Your task to perform on an android device: Go to internet settings Image 0: 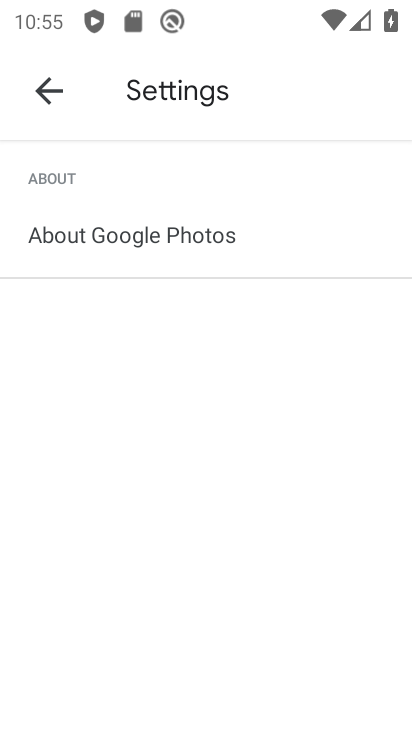
Step 0: press home button
Your task to perform on an android device: Go to internet settings Image 1: 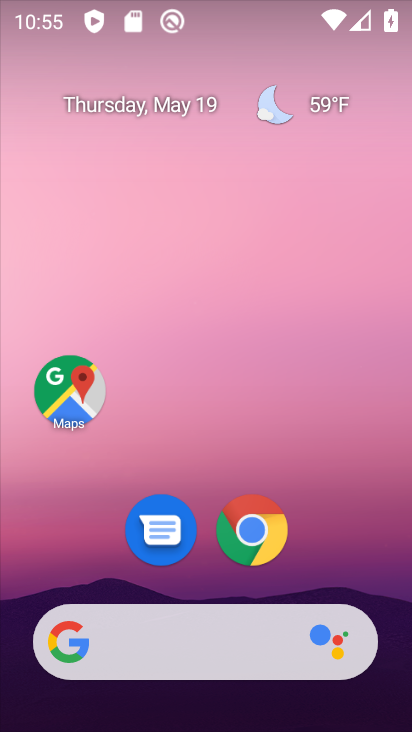
Step 1: drag from (362, 515) to (343, 157)
Your task to perform on an android device: Go to internet settings Image 2: 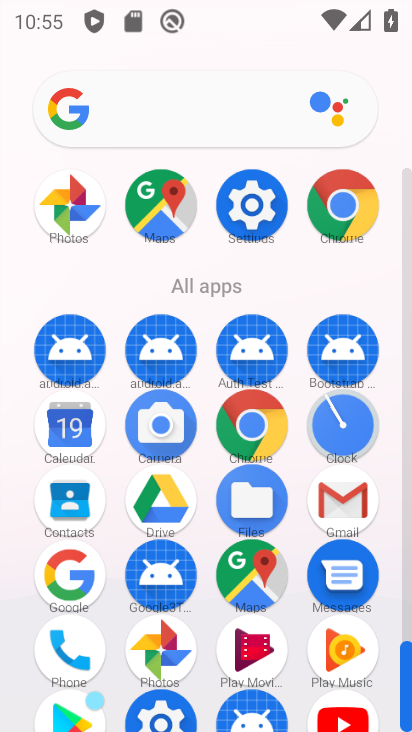
Step 2: click (253, 214)
Your task to perform on an android device: Go to internet settings Image 3: 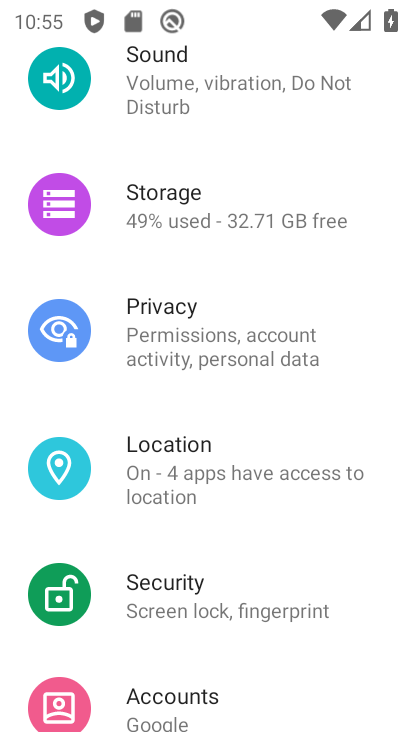
Step 3: drag from (252, 176) to (255, 656)
Your task to perform on an android device: Go to internet settings Image 4: 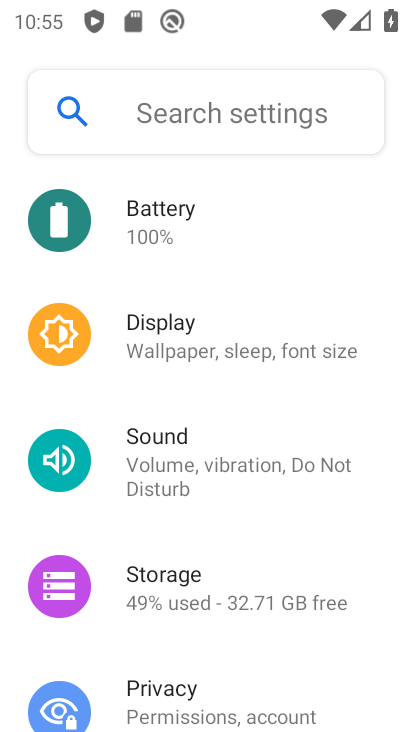
Step 4: drag from (213, 300) to (235, 641)
Your task to perform on an android device: Go to internet settings Image 5: 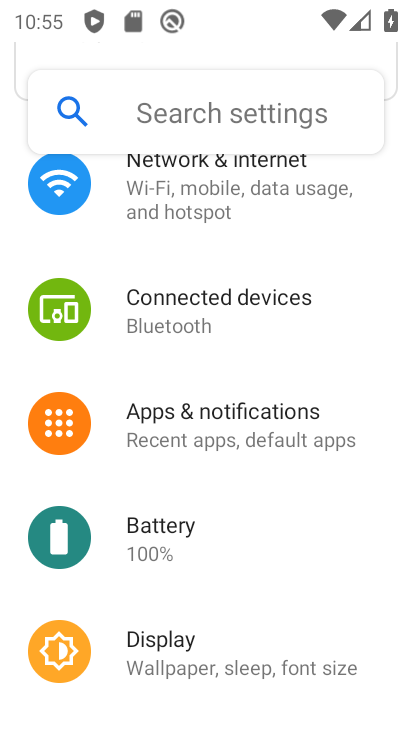
Step 5: drag from (317, 178) to (264, 553)
Your task to perform on an android device: Go to internet settings Image 6: 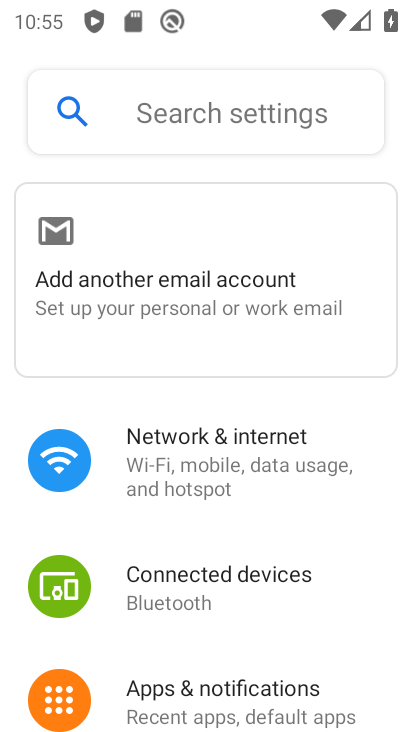
Step 6: click (231, 480)
Your task to perform on an android device: Go to internet settings Image 7: 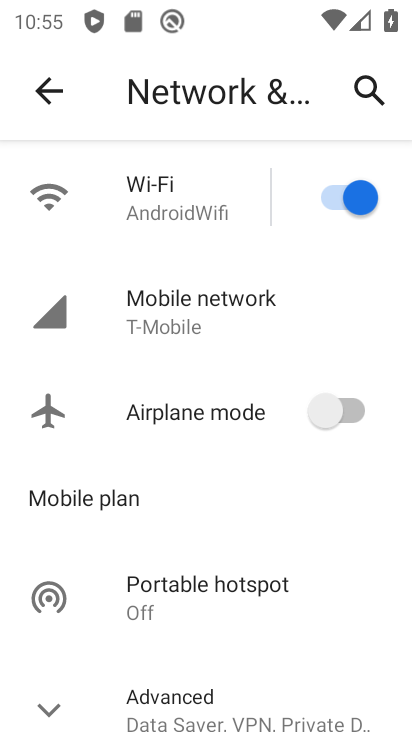
Step 7: task complete